Your task to perform on an android device: see tabs open on other devices in the chrome app Image 0: 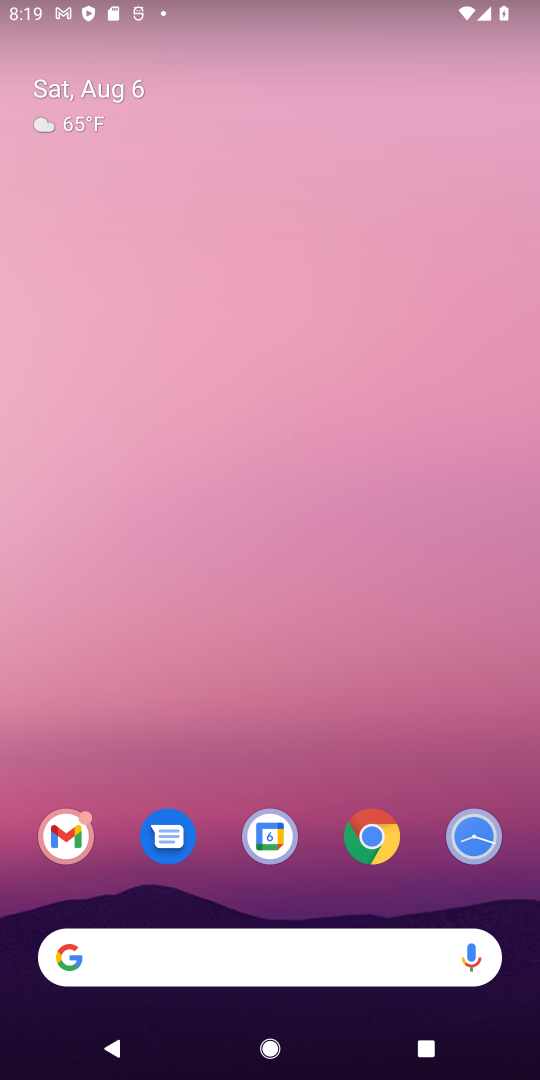
Step 0: drag from (432, 897) to (252, 60)
Your task to perform on an android device: see tabs open on other devices in the chrome app Image 1: 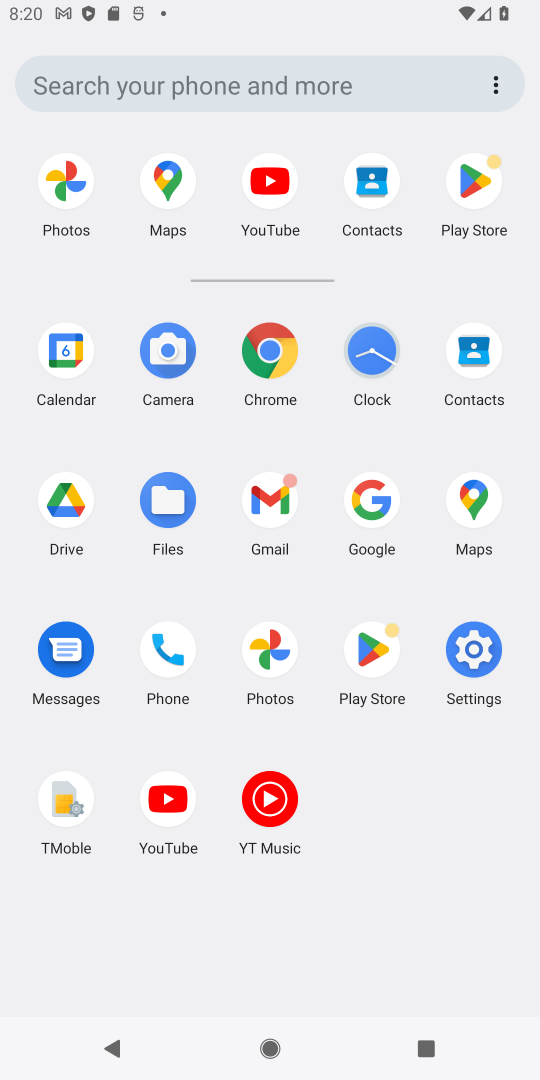
Step 1: click (280, 358)
Your task to perform on an android device: see tabs open on other devices in the chrome app Image 2: 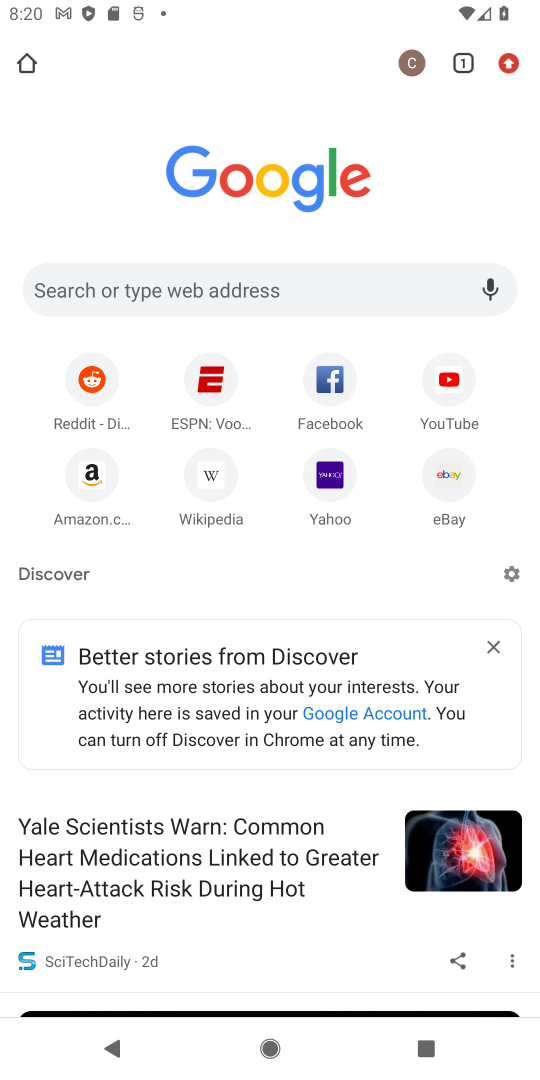
Step 2: task complete